Your task to perform on an android device: Find coffee shops on Maps Image 0: 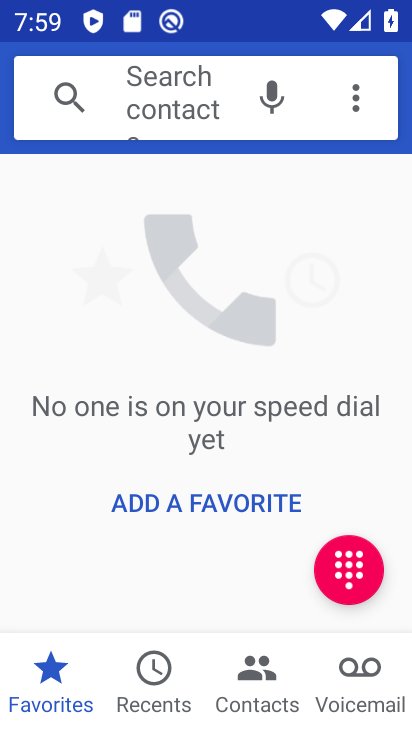
Step 0: press home button
Your task to perform on an android device: Find coffee shops on Maps Image 1: 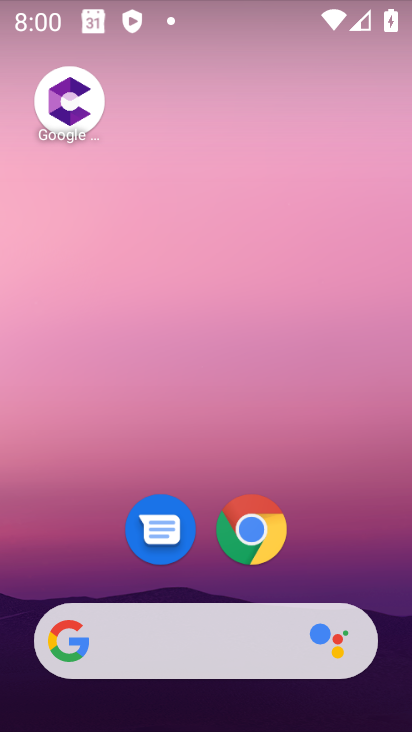
Step 1: drag from (388, 565) to (356, 235)
Your task to perform on an android device: Find coffee shops on Maps Image 2: 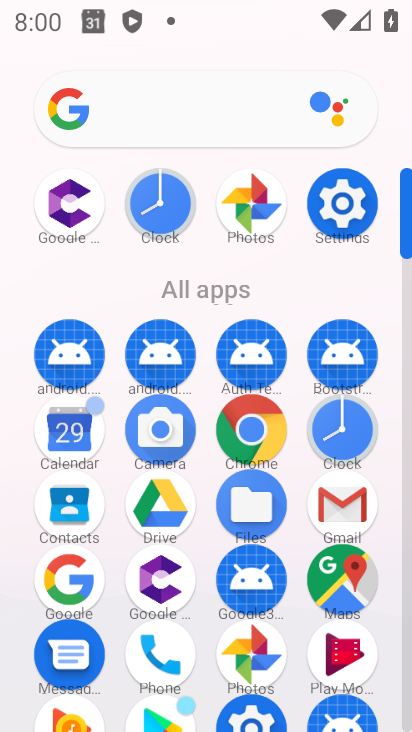
Step 2: click (347, 596)
Your task to perform on an android device: Find coffee shops on Maps Image 3: 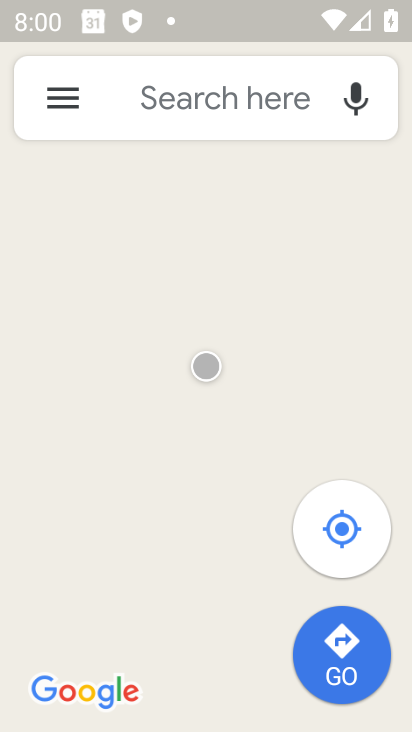
Step 3: click (193, 114)
Your task to perform on an android device: Find coffee shops on Maps Image 4: 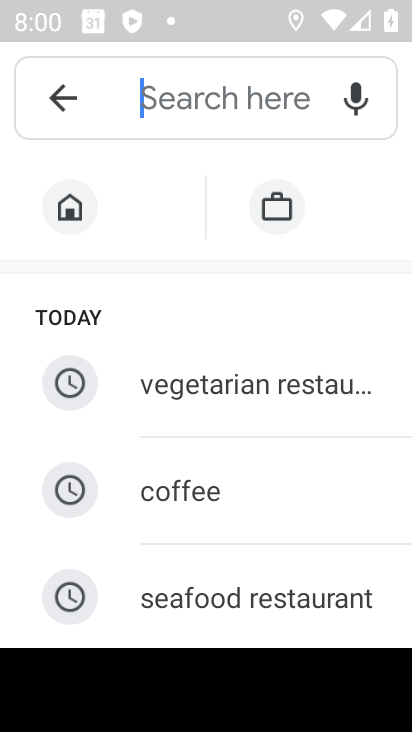
Step 4: type "coffee"
Your task to perform on an android device: Find coffee shops on Maps Image 5: 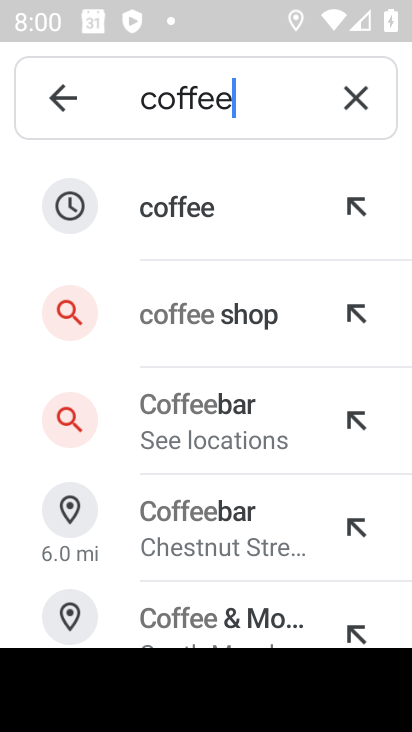
Step 5: click (237, 250)
Your task to perform on an android device: Find coffee shops on Maps Image 6: 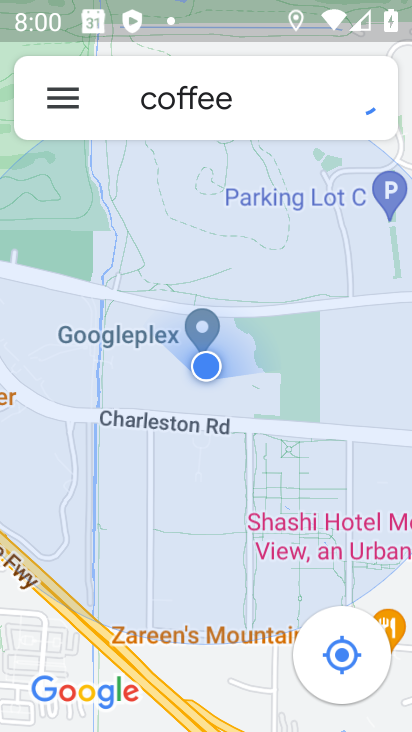
Step 6: task complete